Your task to perform on an android device: turn off data saver in the chrome app Image 0: 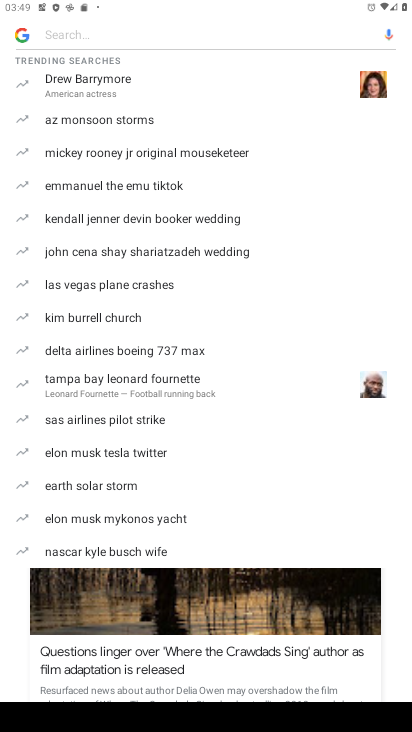
Step 0: press home button
Your task to perform on an android device: turn off data saver in the chrome app Image 1: 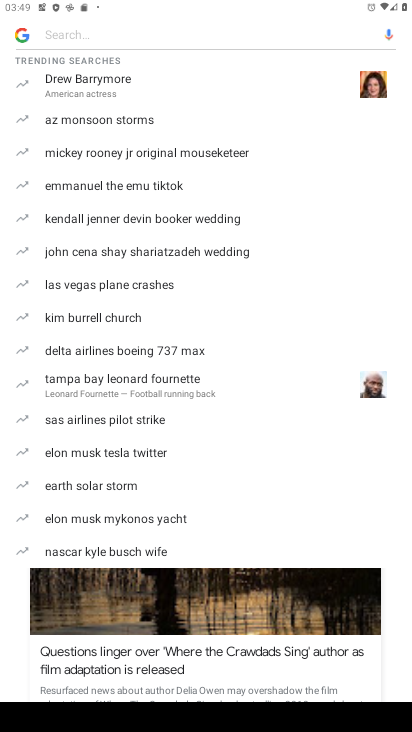
Step 1: press home button
Your task to perform on an android device: turn off data saver in the chrome app Image 2: 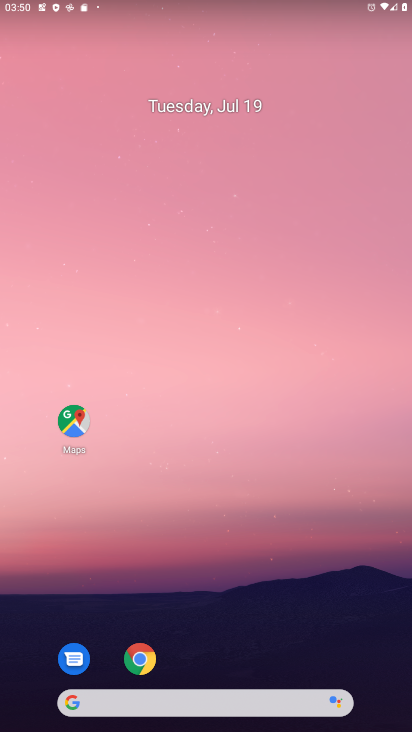
Step 2: drag from (269, 709) to (197, 91)
Your task to perform on an android device: turn off data saver in the chrome app Image 3: 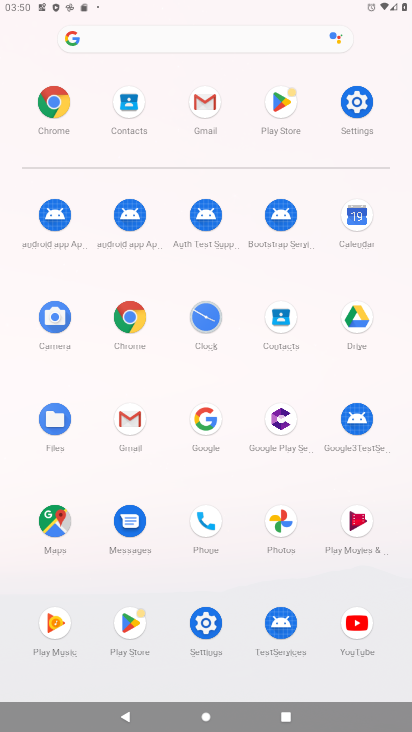
Step 3: click (130, 361)
Your task to perform on an android device: turn off data saver in the chrome app Image 4: 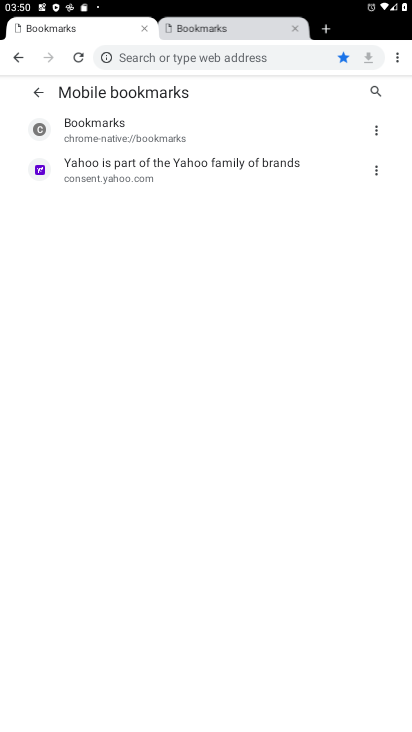
Step 4: drag from (404, 55) to (265, 281)
Your task to perform on an android device: turn off data saver in the chrome app Image 5: 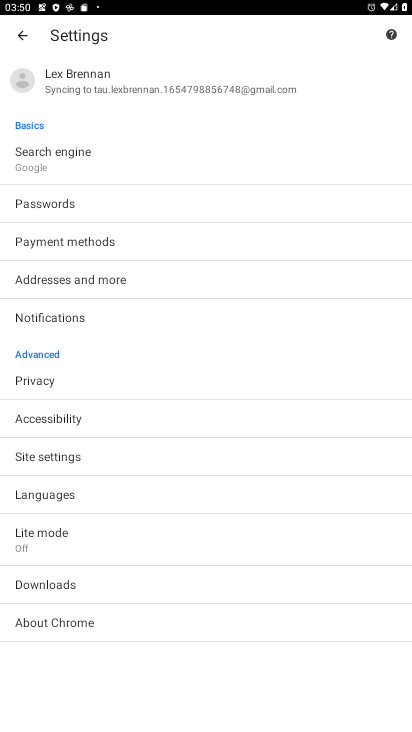
Step 5: click (30, 520)
Your task to perform on an android device: turn off data saver in the chrome app Image 6: 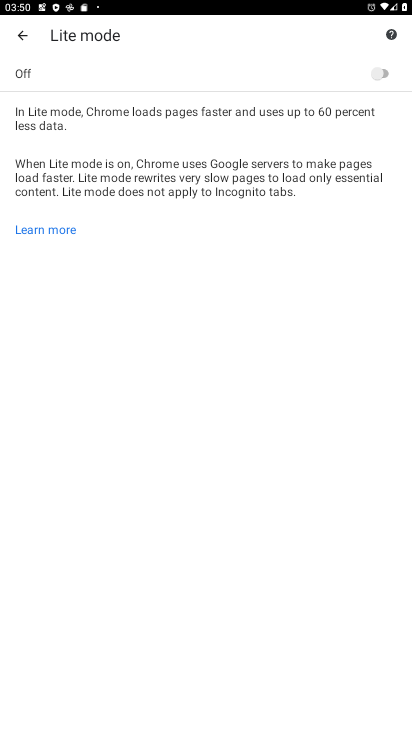
Step 6: task complete